Your task to perform on an android device: turn off data saver in the chrome app Image 0: 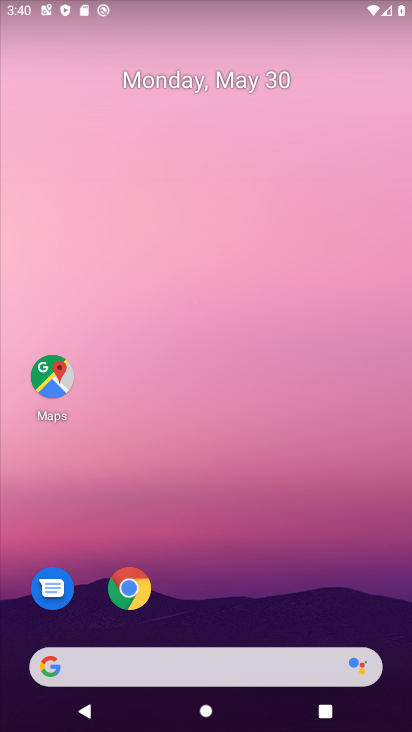
Step 0: drag from (255, 489) to (216, 11)
Your task to perform on an android device: turn off data saver in the chrome app Image 1: 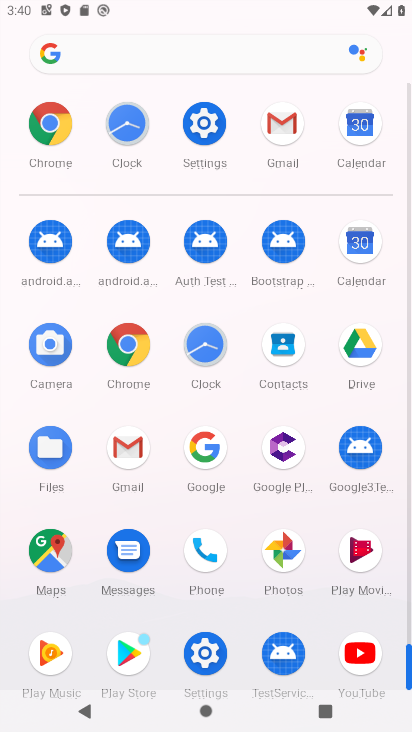
Step 1: drag from (11, 603) to (29, 227)
Your task to perform on an android device: turn off data saver in the chrome app Image 2: 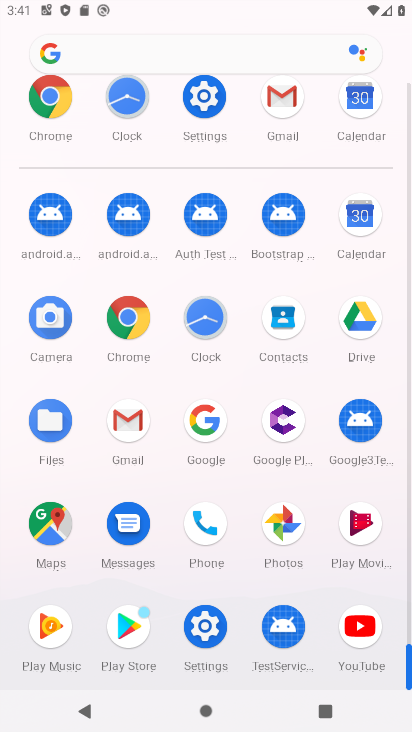
Step 2: click (123, 313)
Your task to perform on an android device: turn off data saver in the chrome app Image 3: 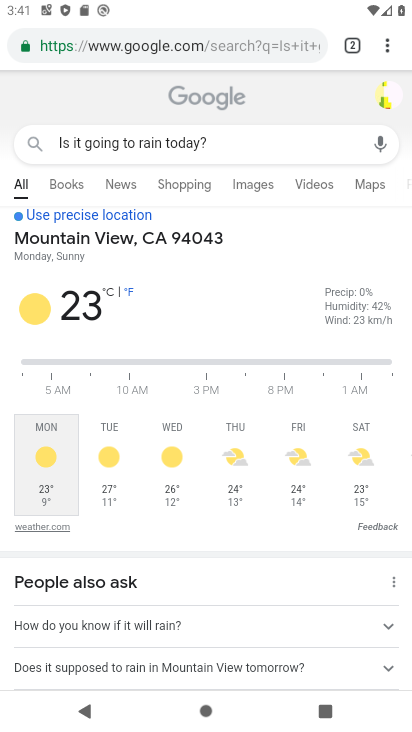
Step 3: drag from (386, 46) to (230, 503)
Your task to perform on an android device: turn off data saver in the chrome app Image 4: 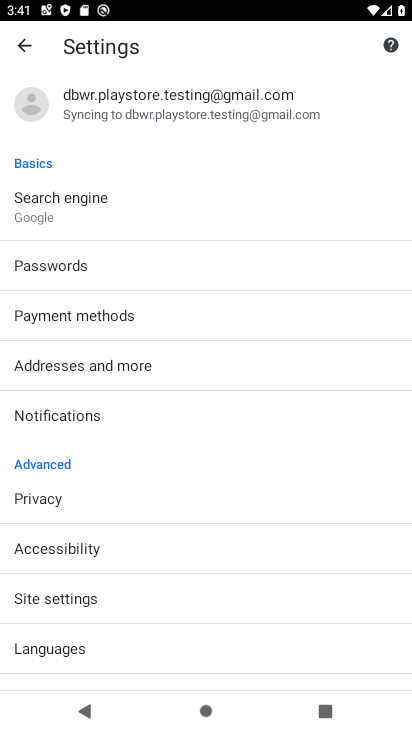
Step 4: drag from (170, 588) to (226, 262)
Your task to perform on an android device: turn off data saver in the chrome app Image 5: 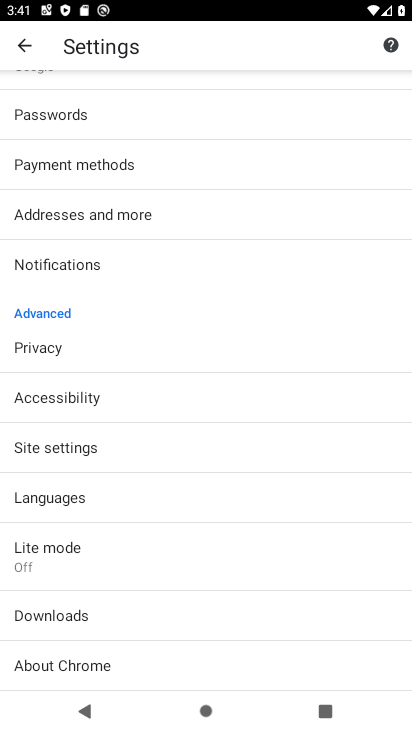
Step 5: click (83, 557)
Your task to perform on an android device: turn off data saver in the chrome app Image 6: 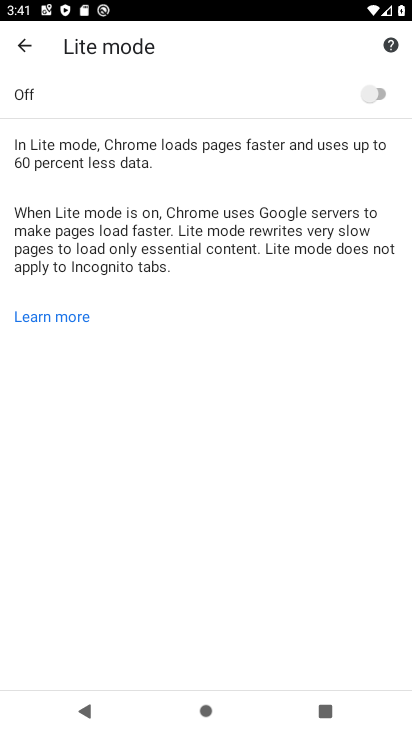
Step 6: task complete